Your task to perform on an android device: Find coffee shops on Maps Image 0: 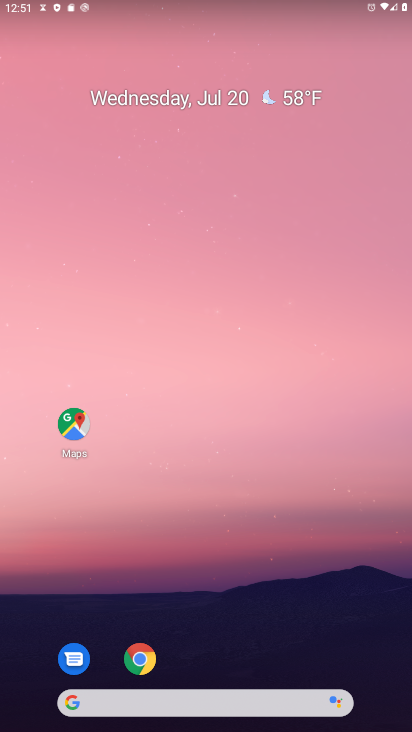
Step 0: press home button
Your task to perform on an android device: Find coffee shops on Maps Image 1: 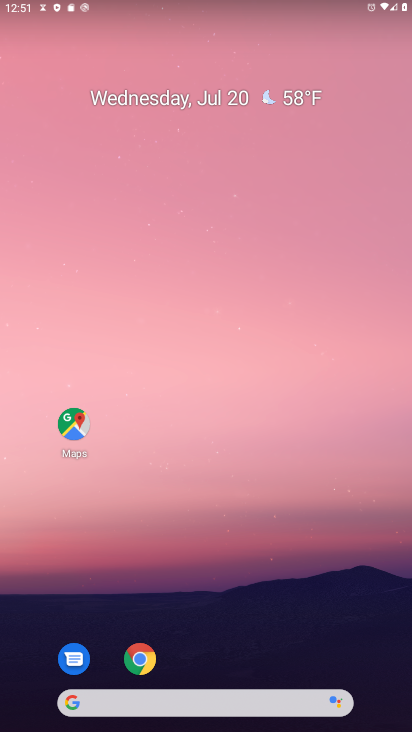
Step 1: click (68, 413)
Your task to perform on an android device: Find coffee shops on Maps Image 2: 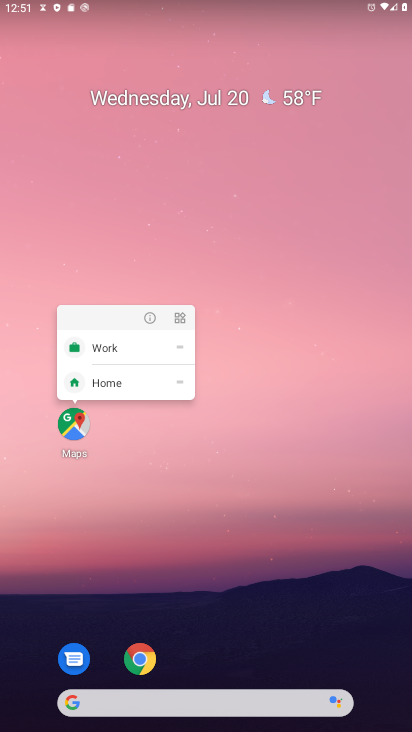
Step 2: click (68, 417)
Your task to perform on an android device: Find coffee shops on Maps Image 3: 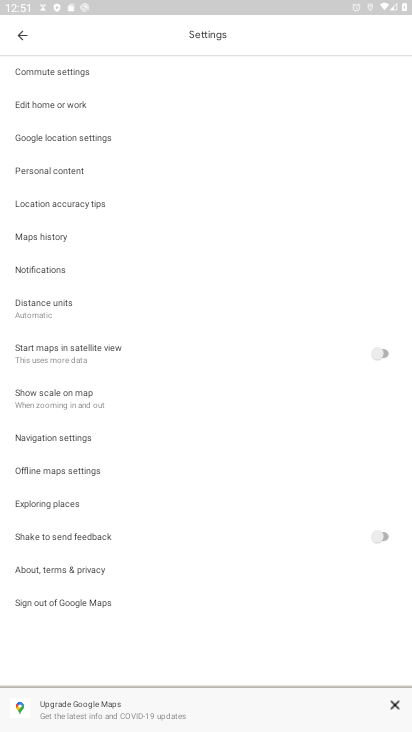
Step 3: click (26, 33)
Your task to perform on an android device: Find coffee shops on Maps Image 4: 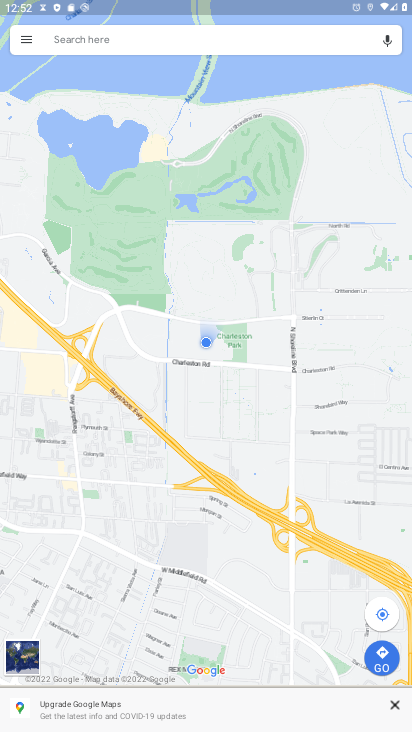
Step 4: click (80, 34)
Your task to perform on an android device: Find coffee shops on Maps Image 5: 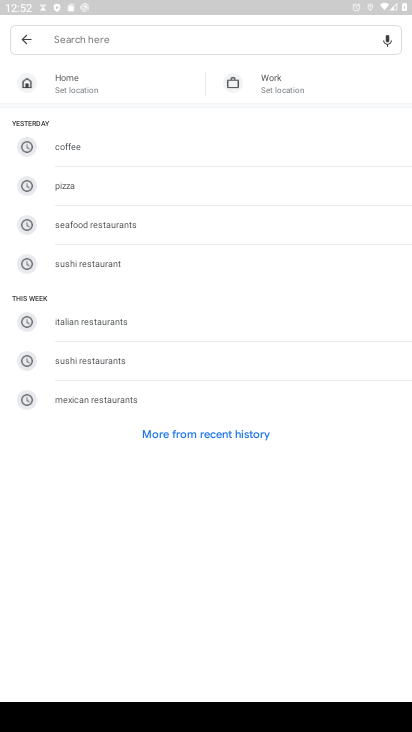
Step 5: type "coffee shop"
Your task to perform on an android device: Find coffee shops on Maps Image 6: 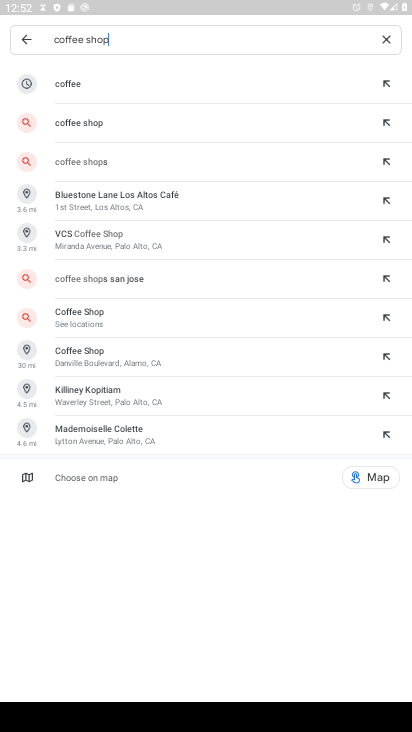
Step 6: click (114, 125)
Your task to perform on an android device: Find coffee shops on Maps Image 7: 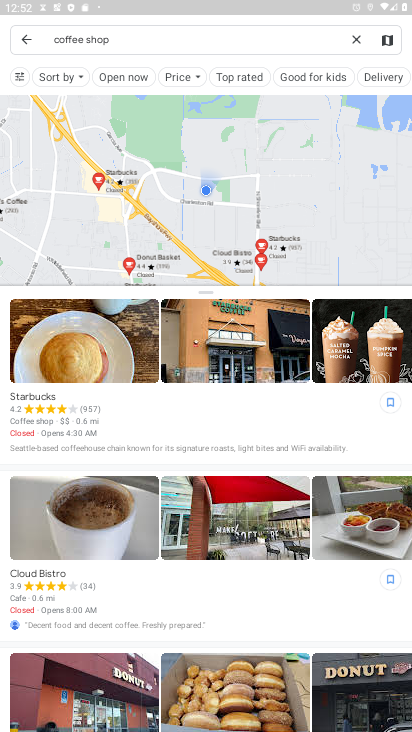
Step 7: task complete